Your task to perform on an android device: Add bose soundlink mini to the cart on amazon.com Image 0: 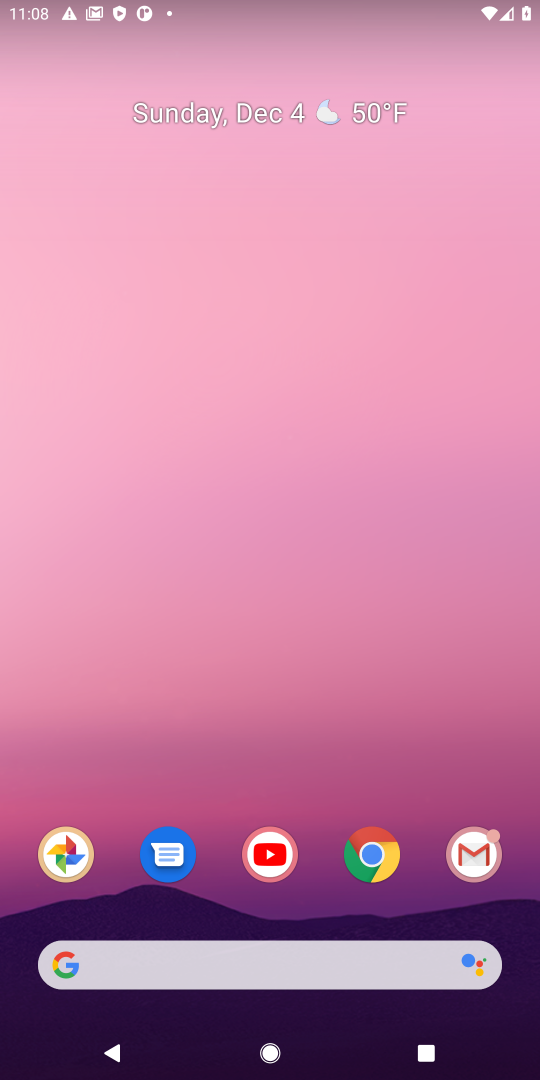
Step 0: click (290, 974)
Your task to perform on an android device: Add bose soundlink mini to the cart on amazon.com Image 1: 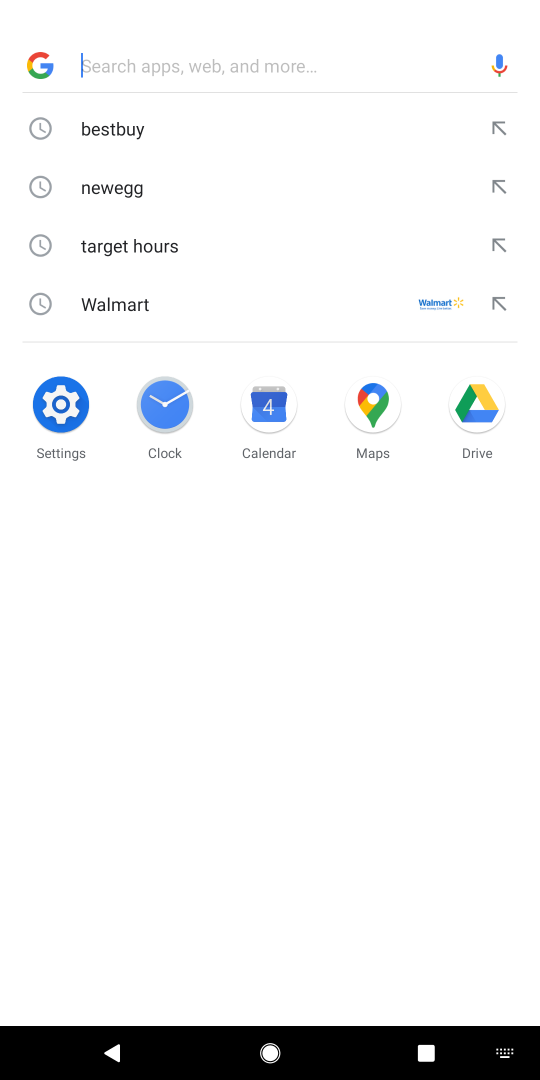
Step 1: type "amazon"
Your task to perform on an android device: Add bose soundlink mini to the cart on amazon.com Image 2: 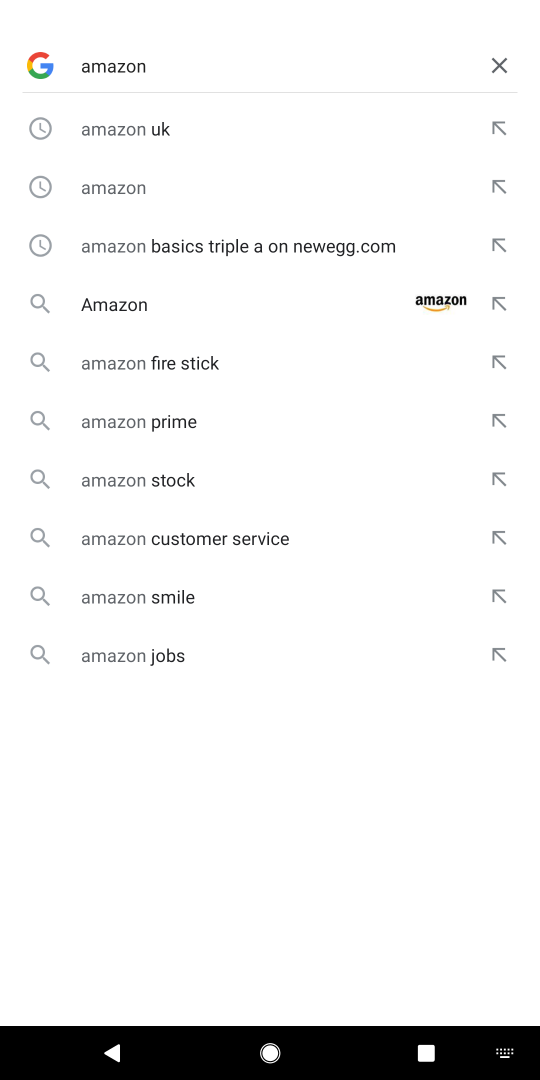
Step 2: click (147, 181)
Your task to perform on an android device: Add bose soundlink mini to the cart on amazon.com Image 3: 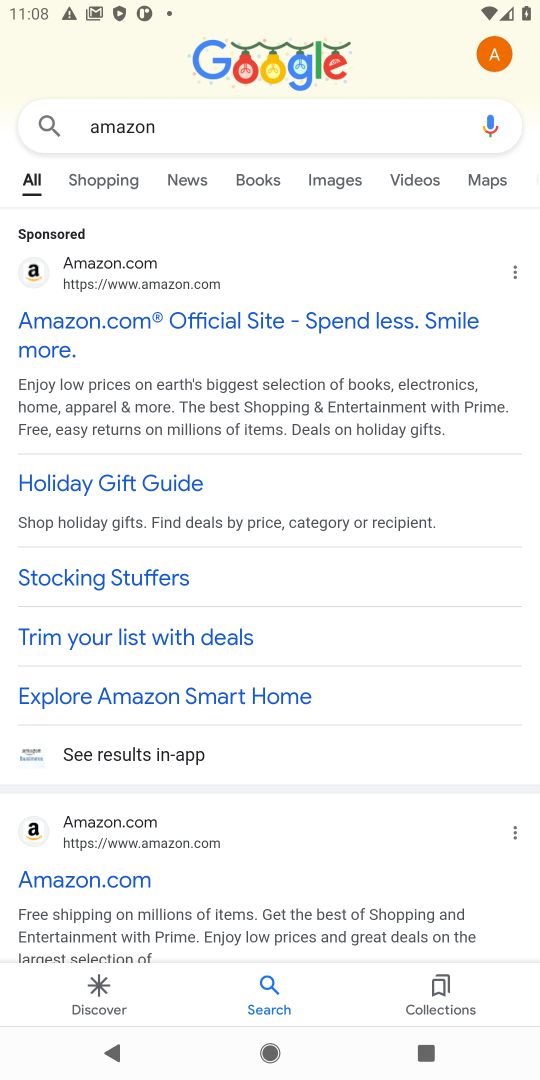
Step 3: click (108, 349)
Your task to perform on an android device: Add bose soundlink mini to the cart on amazon.com Image 4: 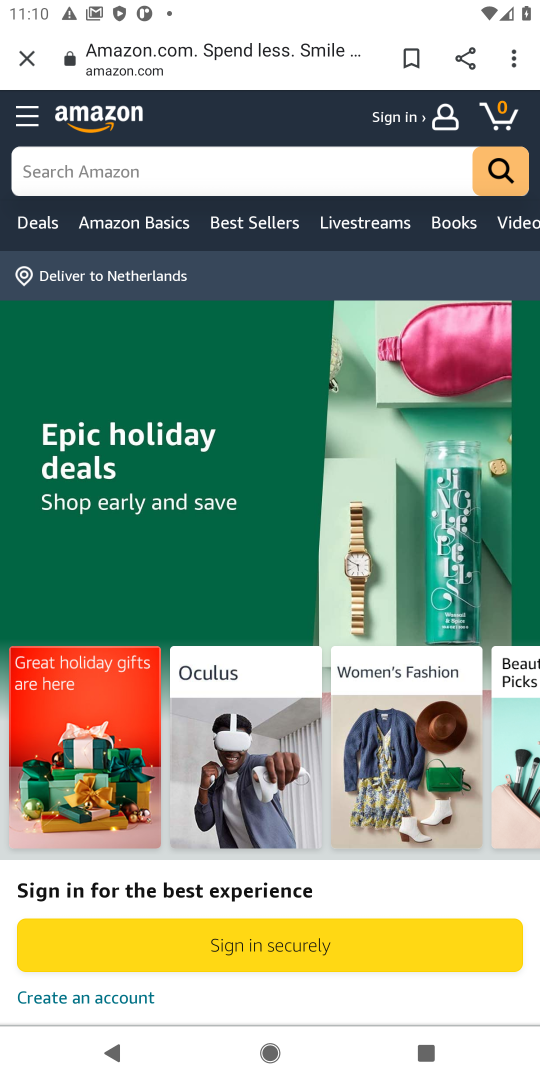
Step 4: task complete